Your task to perform on an android device: add a label to a message in the gmail app Image 0: 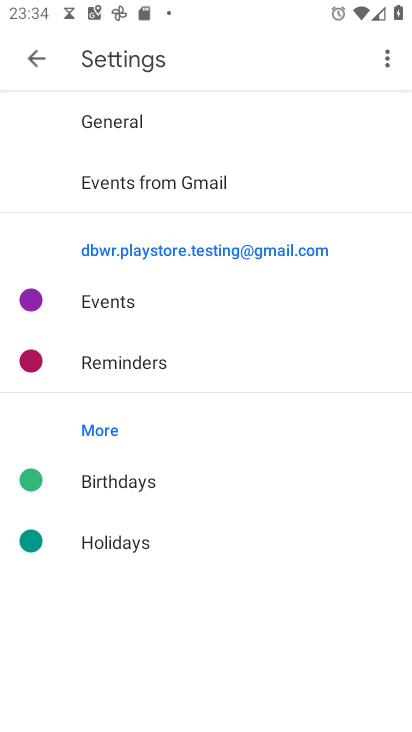
Step 0: press home button
Your task to perform on an android device: add a label to a message in the gmail app Image 1: 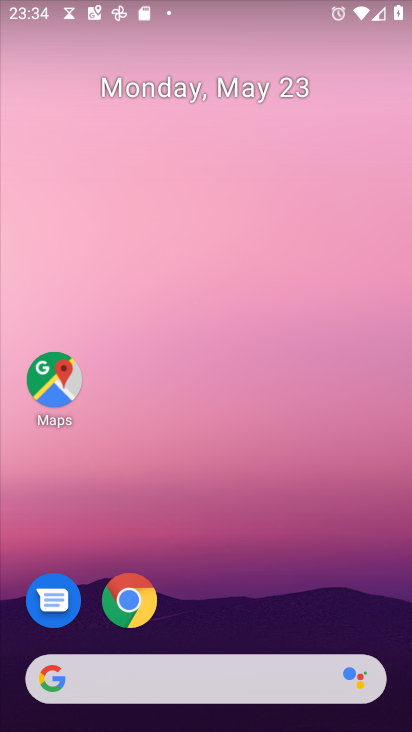
Step 1: drag from (223, 719) to (228, 131)
Your task to perform on an android device: add a label to a message in the gmail app Image 2: 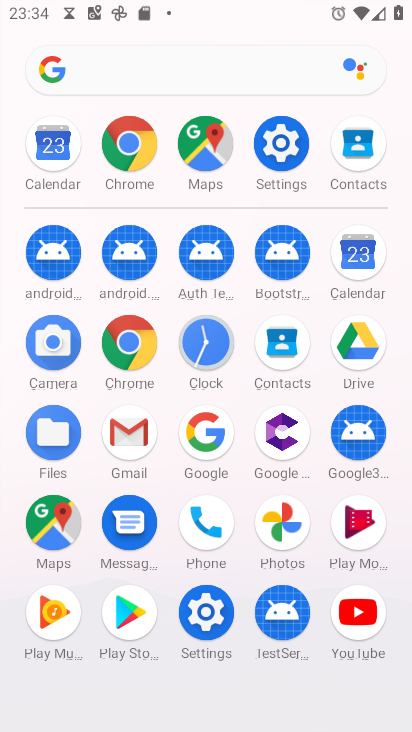
Step 2: click (124, 438)
Your task to perform on an android device: add a label to a message in the gmail app Image 3: 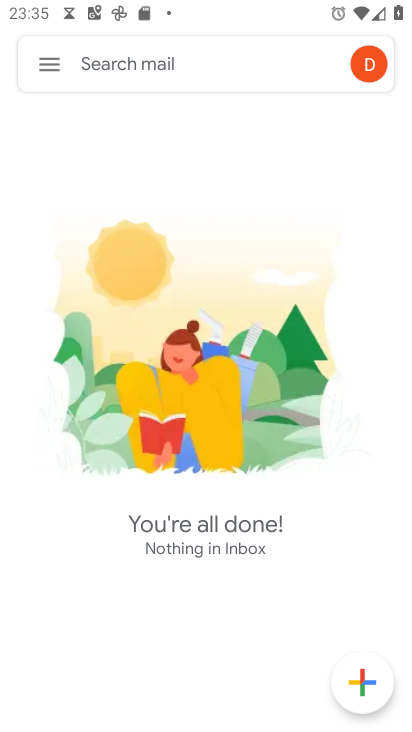
Step 3: task complete